Your task to perform on an android device: delete the emails in spam in the gmail app Image 0: 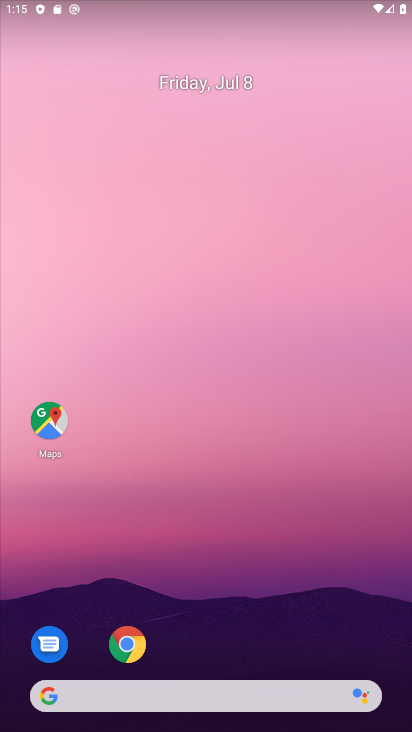
Step 0: press home button
Your task to perform on an android device: delete the emails in spam in the gmail app Image 1: 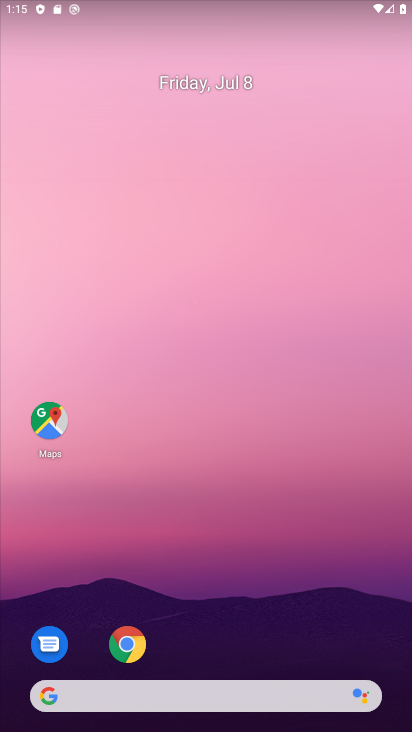
Step 1: drag from (327, 621) to (297, 70)
Your task to perform on an android device: delete the emails in spam in the gmail app Image 2: 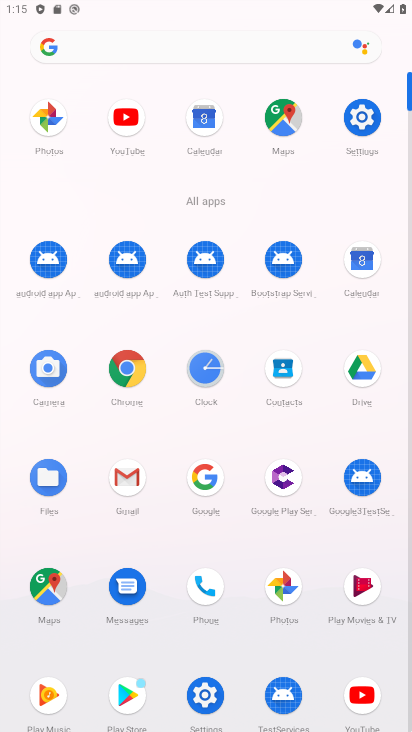
Step 2: click (367, 121)
Your task to perform on an android device: delete the emails in spam in the gmail app Image 3: 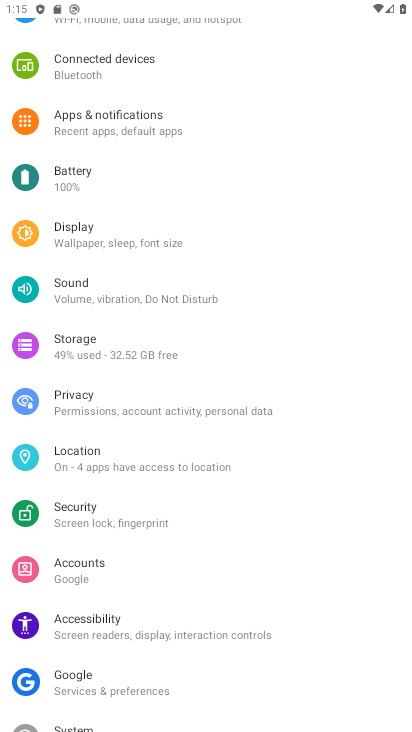
Step 3: drag from (269, 93) to (263, 472)
Your task to perform on an android device: delete the emails in spam in the gmail app Image 4: 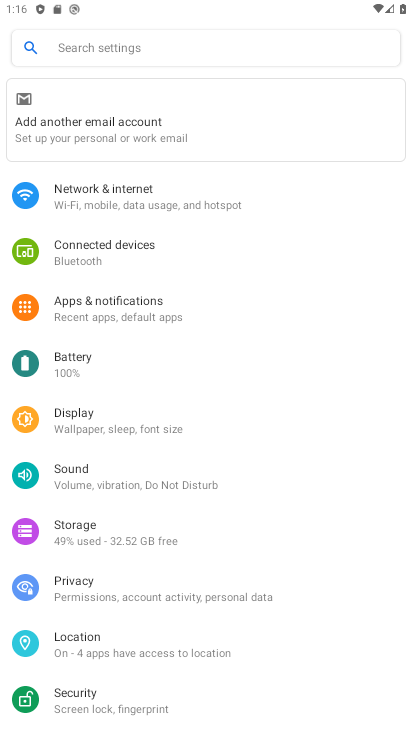
Step 4: press back button
Your task to perform on an android device: delete the emails in spam in the gmail app Image 5: 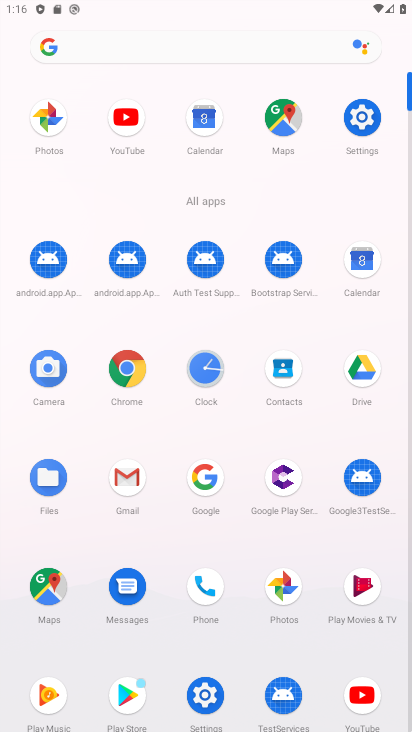
Step 5: drag from (166, 635) to (185, 322)
Your task to perform on an android device: delete the emails in spam in the gmail app Image 6: 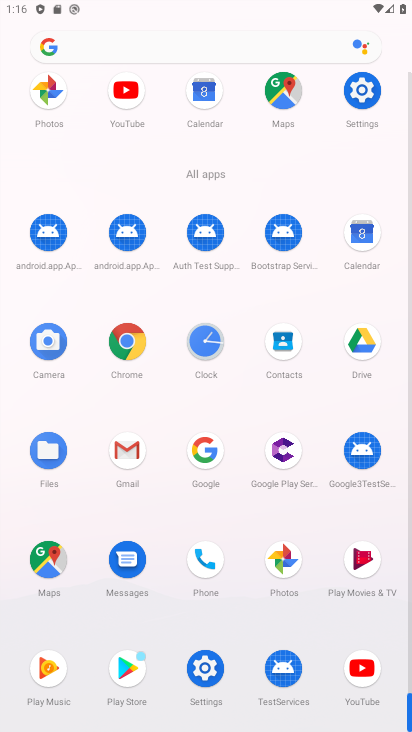
Step 6: click (122, 450)
Your task to perform on an android device: delete the emails in spam in the gmail app Image 7: 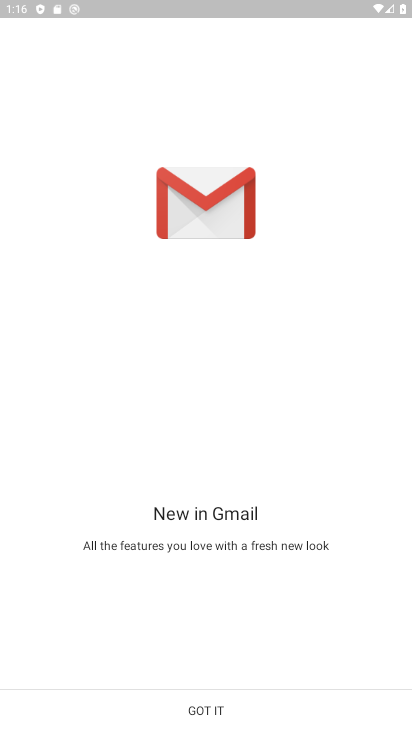
Step 7: click (210, 711)
Your task to perform on an android device: delete the emails in spam in the gmail app Image 8: 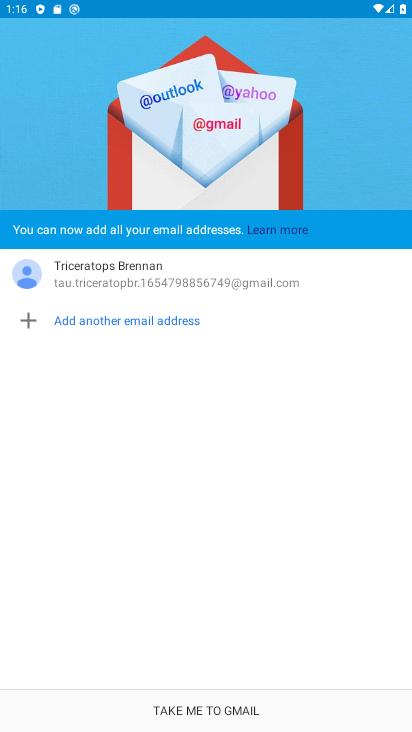
Step 8: click (210, 711)
Your task to perform on an android device: delete the emails in spam in the gmail app Image 9: 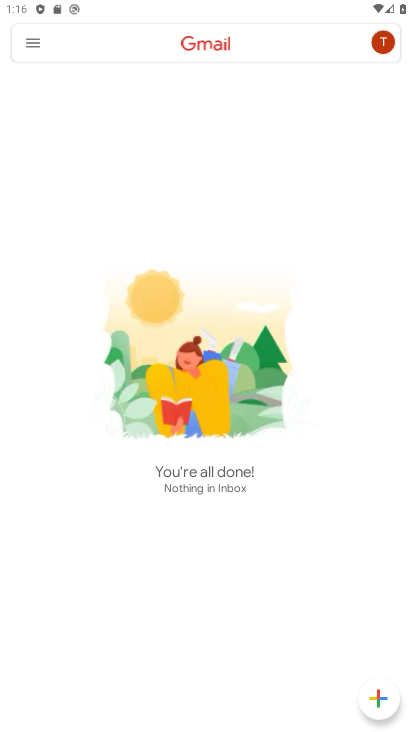
Step 9: click (24, 42)
Your task to perform on an android device: delete the emails in spam in the gmail app Image 10: 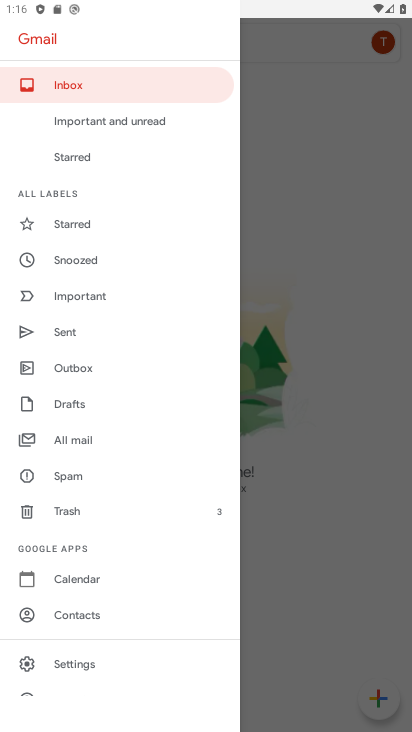
Step 10: click (68, 480)
Your task to perform on an android device: delete the emails in spam in the gmail app Image 11: 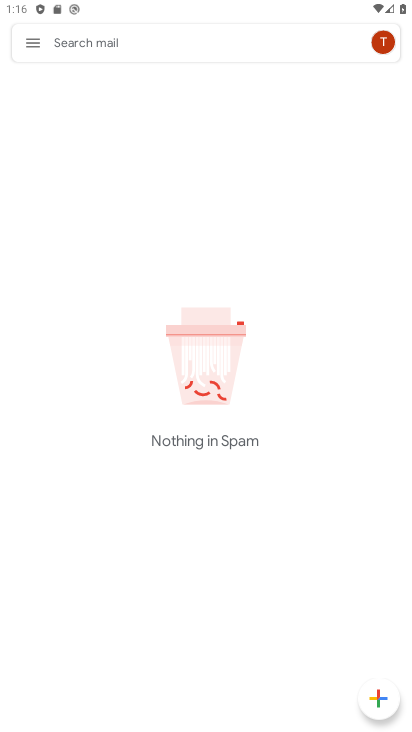
Step 11: task complete